Your task to perform on an android device: change the clock style Image 0: 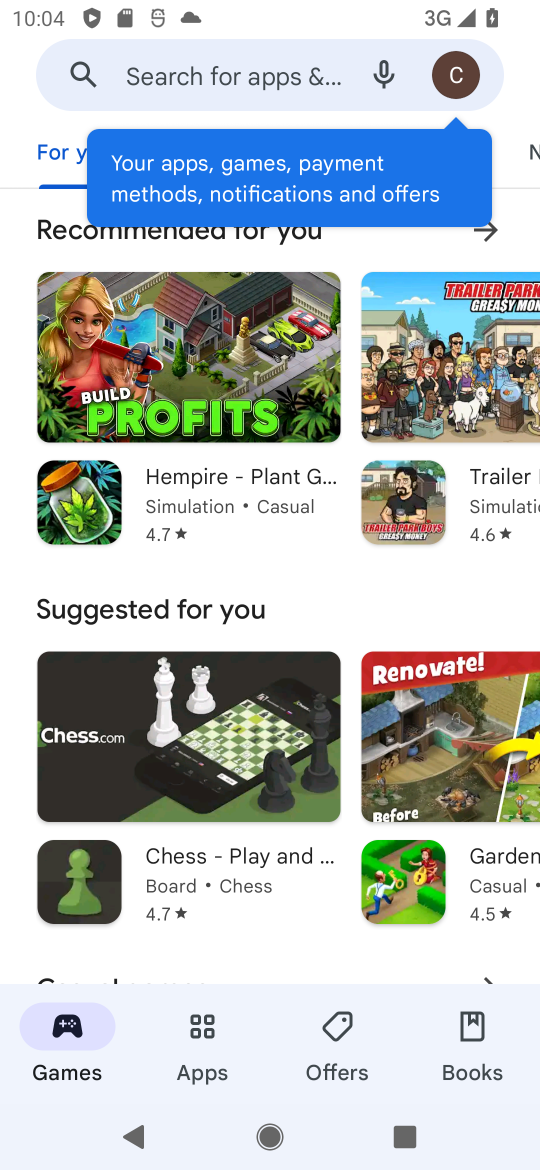
Step 0: press home button
Your task to perform on an android device: change the clock style Image 1: 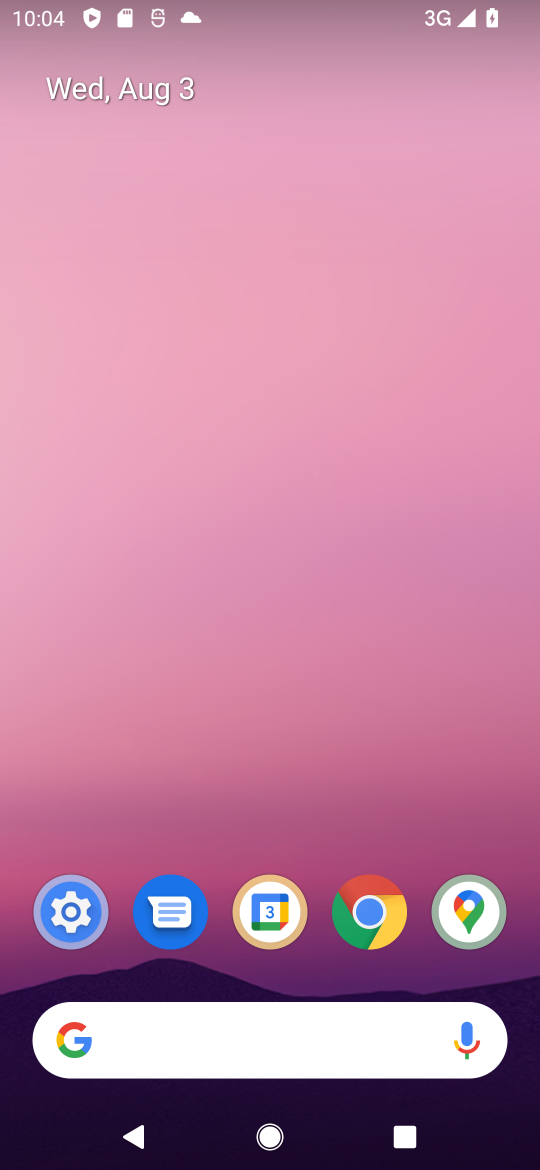
Step 1: drag from (311, 712) to (161, 68)
Your task to perform on an android device: change the clock style Image 2: 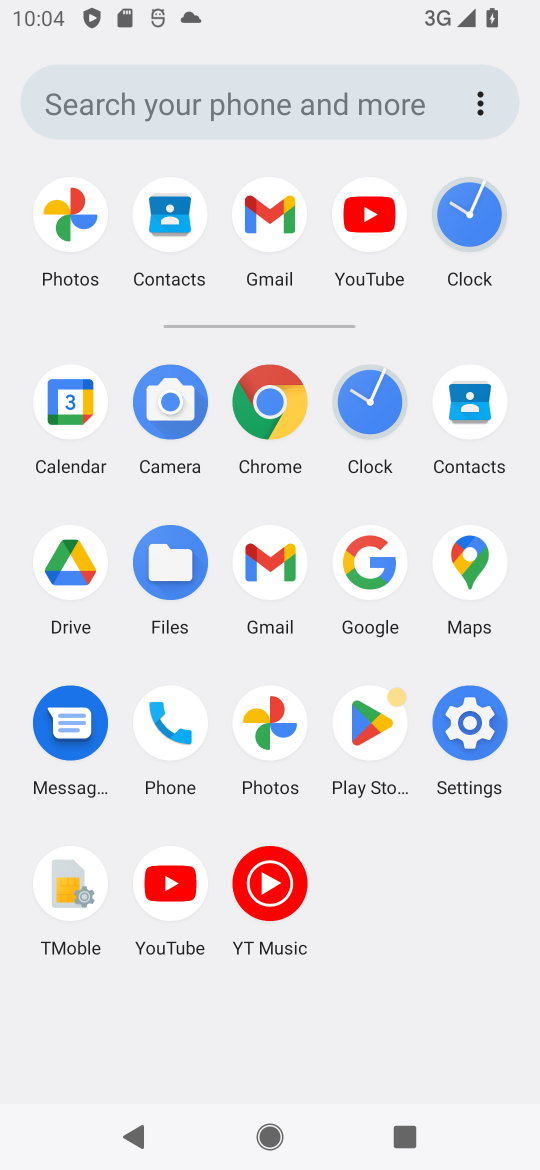
Step 2: click (461, 225)
Your task to perform on an android device: change the clock style Image 3: 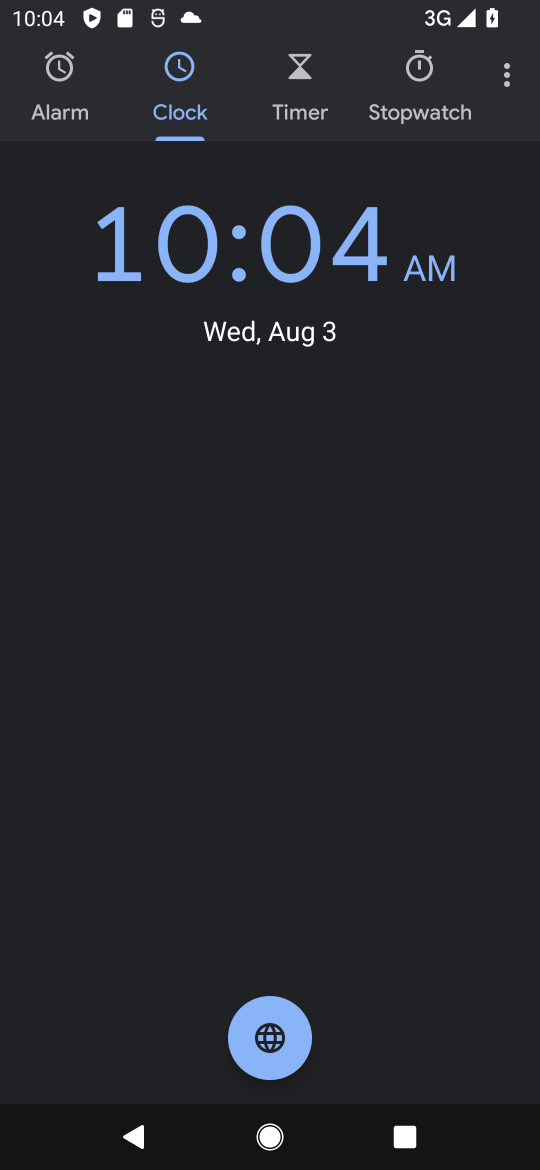
Step 3: click (506, 86)
Your task to perform on an android device: change the clock style Image 4: 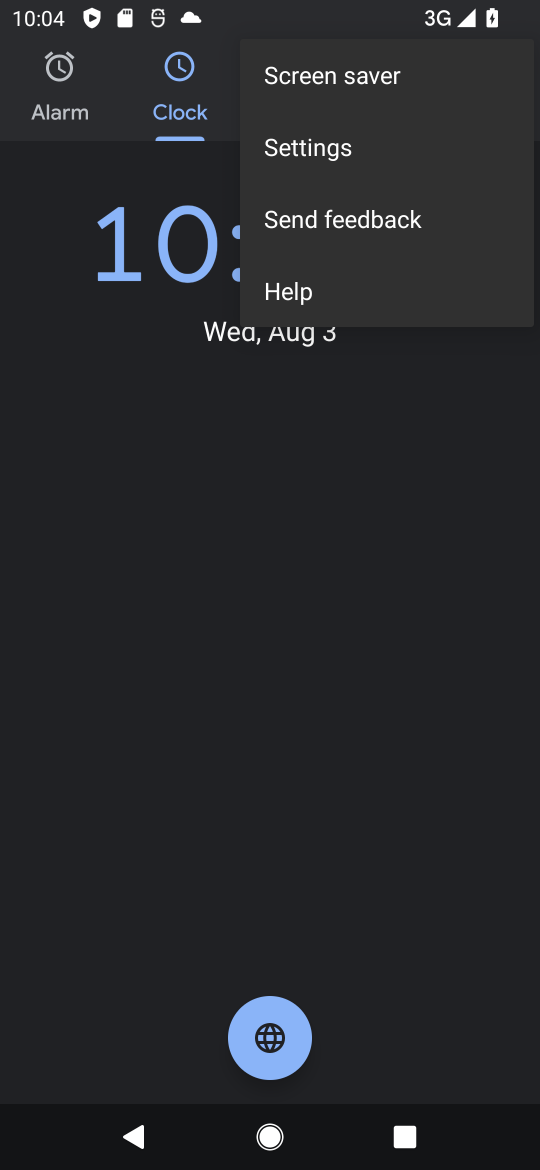
Step 4: click (347, 157)
Your task to perform on an android device: change the clock style Image 5: 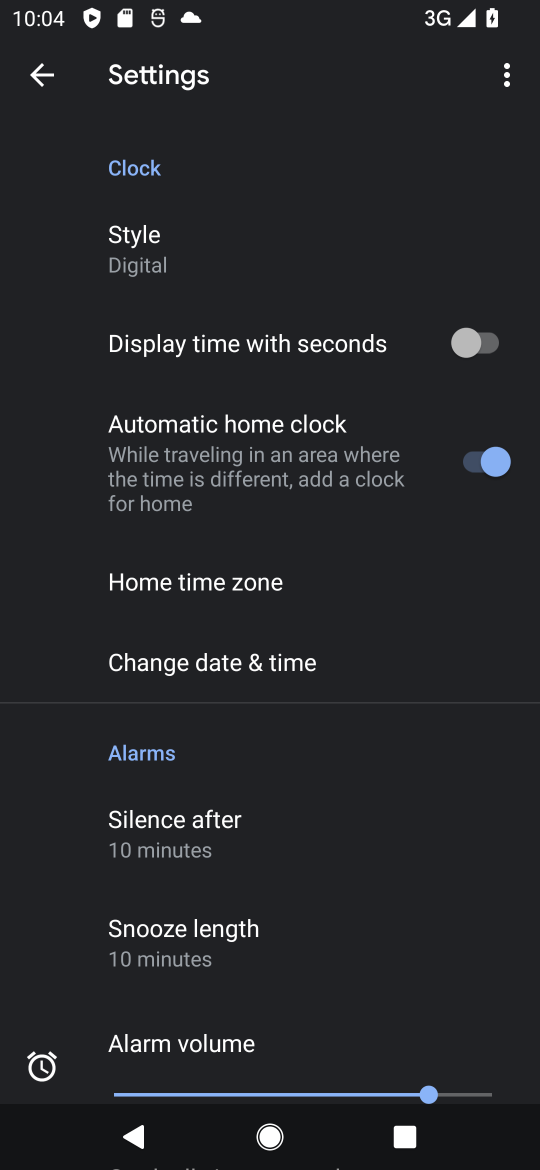
Step 5: click (161, 246)
Your task to perform on an android device: change the clock style Image 6: 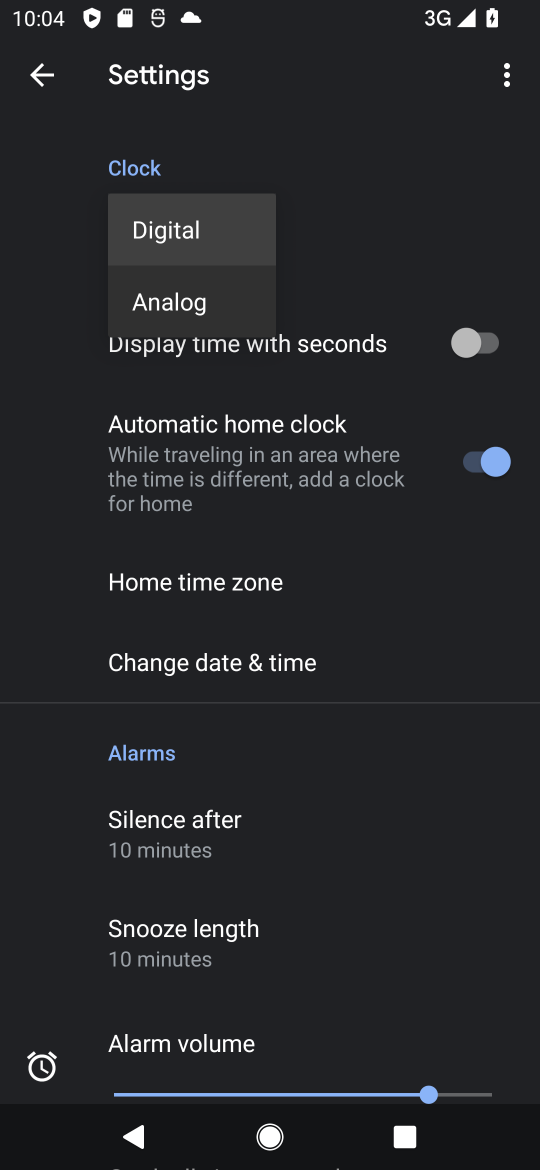
Step 6: click (176, 301)
Your task to perform on an android device: change the clock style Image 7: 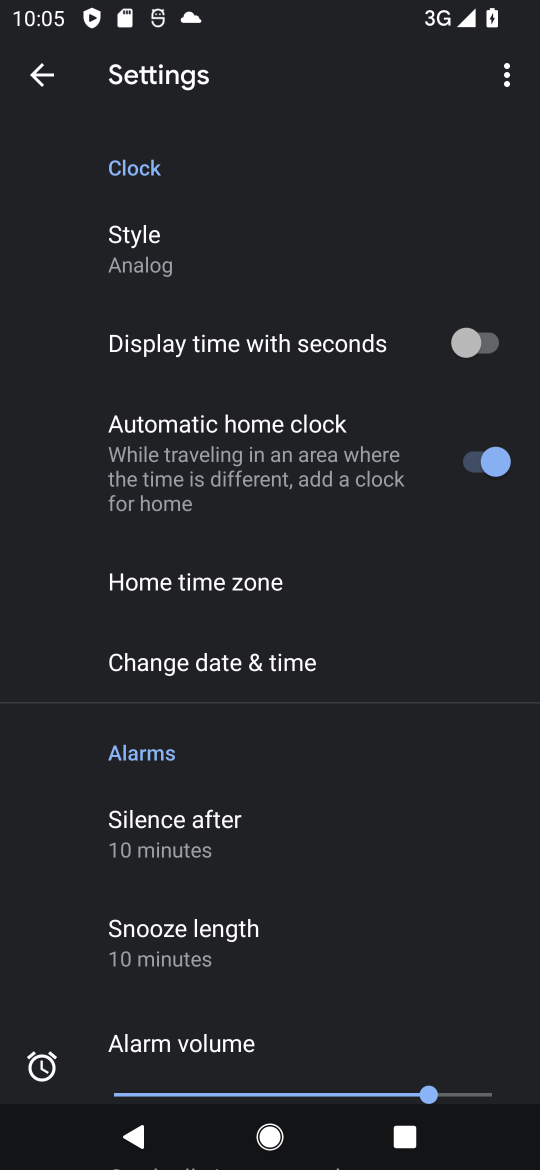
Step 7: task complete